Your task to perform on an android device: Search for sushi restaurants on Maps Image 0: 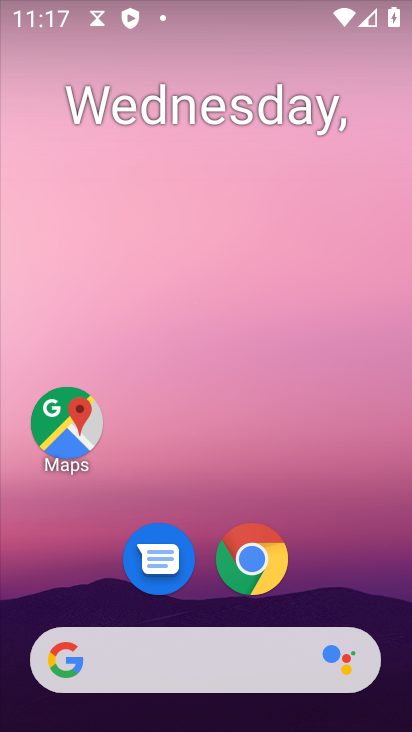
Step 0: click (92, 418)
Your task to perform on an android device: Search for sushi restaurants on Maps Image 1: 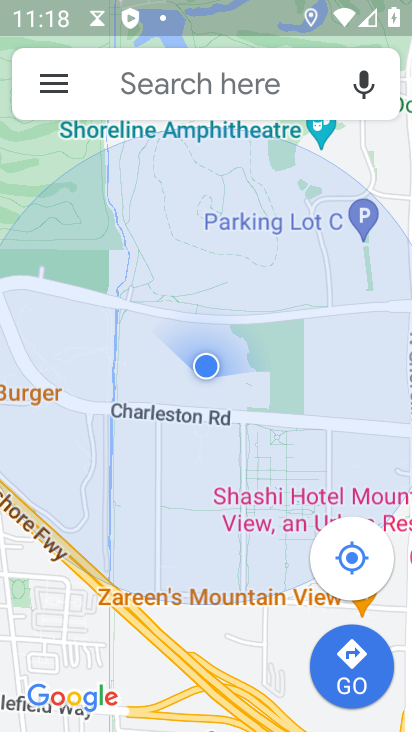
Step 1: click (158, 92)
Your task to perform on an android device: Search for sushi restaurants on Maps Image 2: 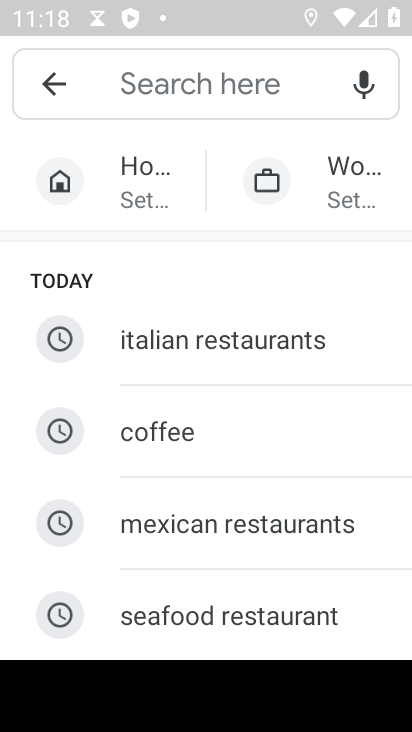
Step 2: type "sushi restaurants"
Your task to perform on an android device: Search for sushi restaurants on Maps Image 3: 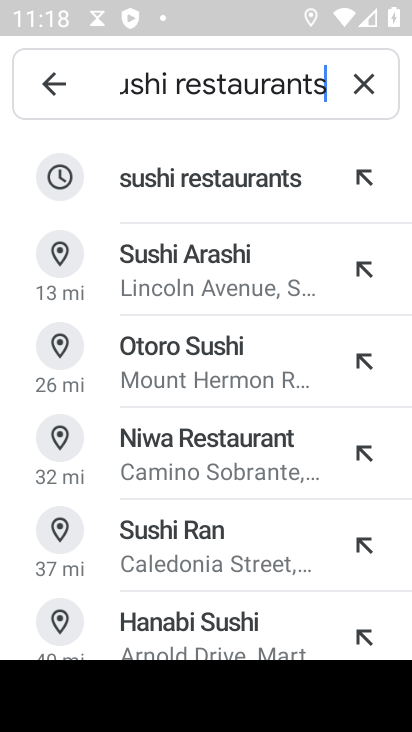
Step 3: click (244, 187)
Your task to perform on an android device: Search for sushi restaurants on Maps Image 4: 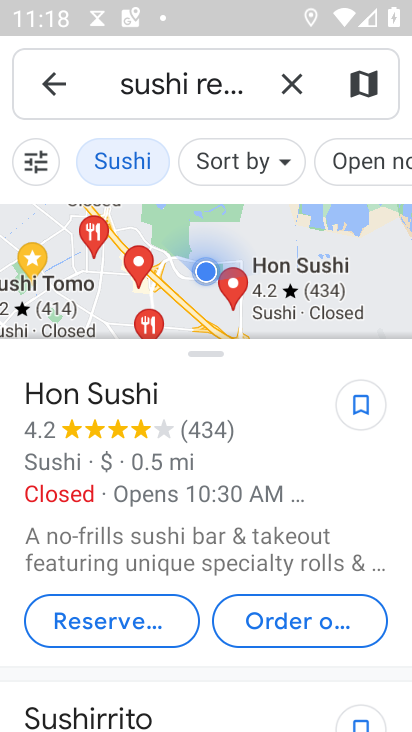
Step 4: task complete